Your task to perform on an android device: Search for the best 4k TVs Image 0: 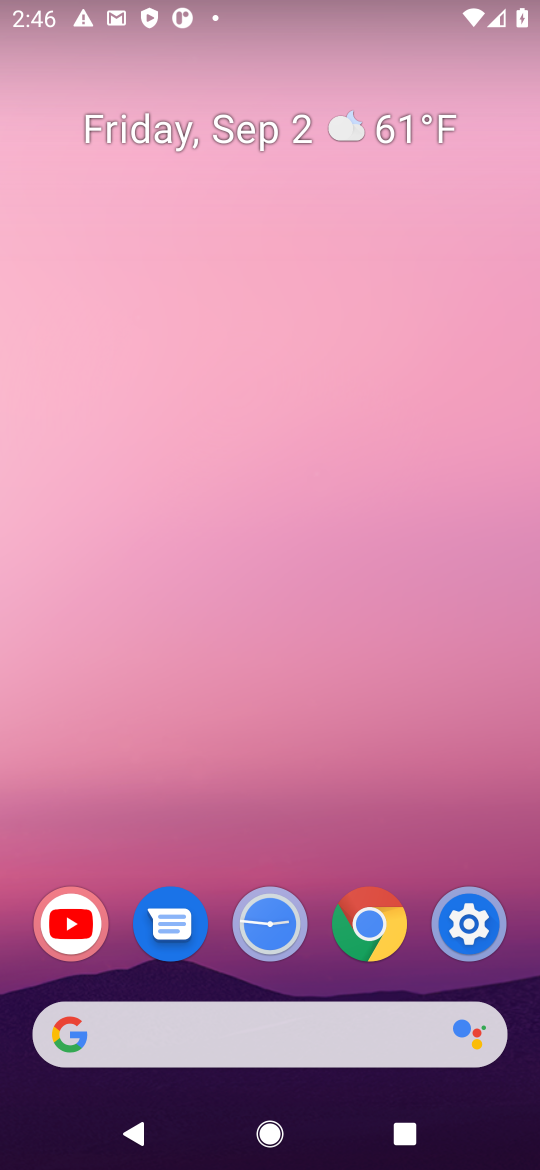
Step 0: press home button
Your task to perform on an android device: Search for the best 4k TVs Image 1: 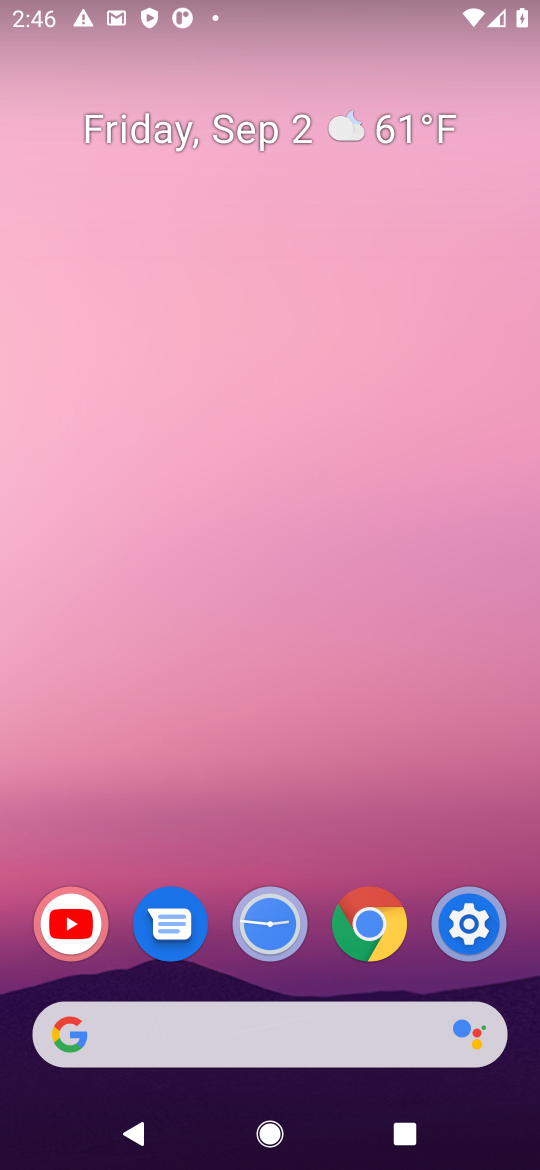
Step 1: click (395, 1031)
Your task to perform on an android device: Search for the best 4k TVs Image 2: 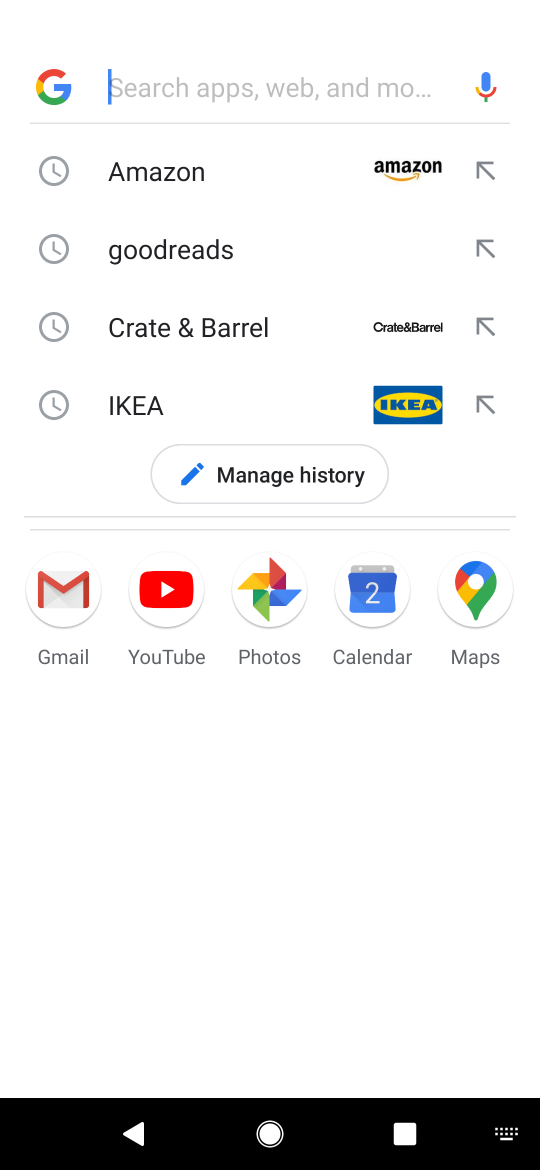
Step 2: press enter
Your task to perform on an android device: Search for the best 4k TVs Image 3: 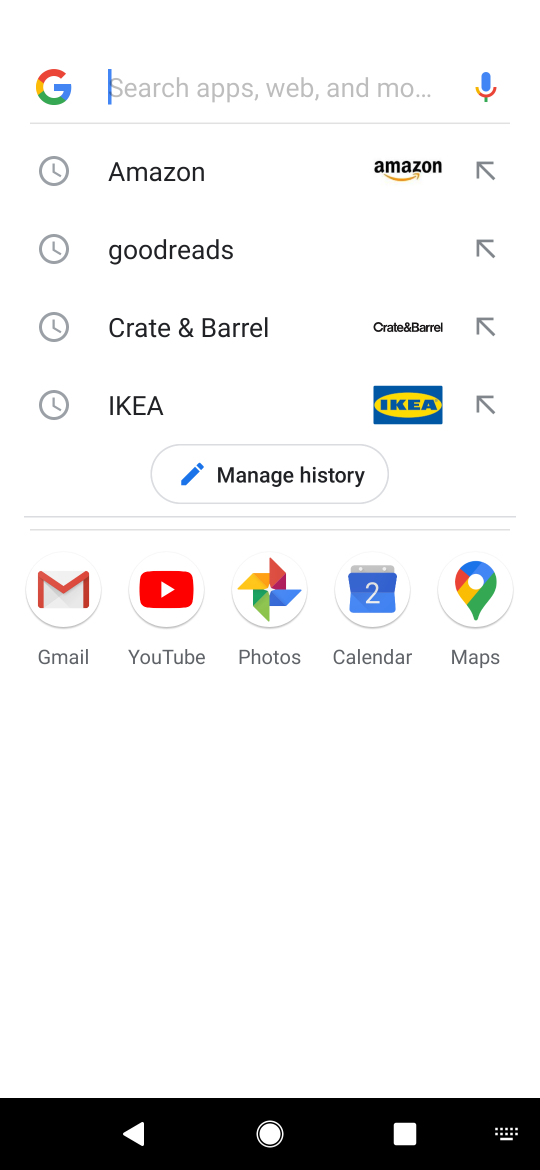
Step 3: type "4k tvs"
Your task to perform on an android device: Search for the best 4k TVs Image 4: 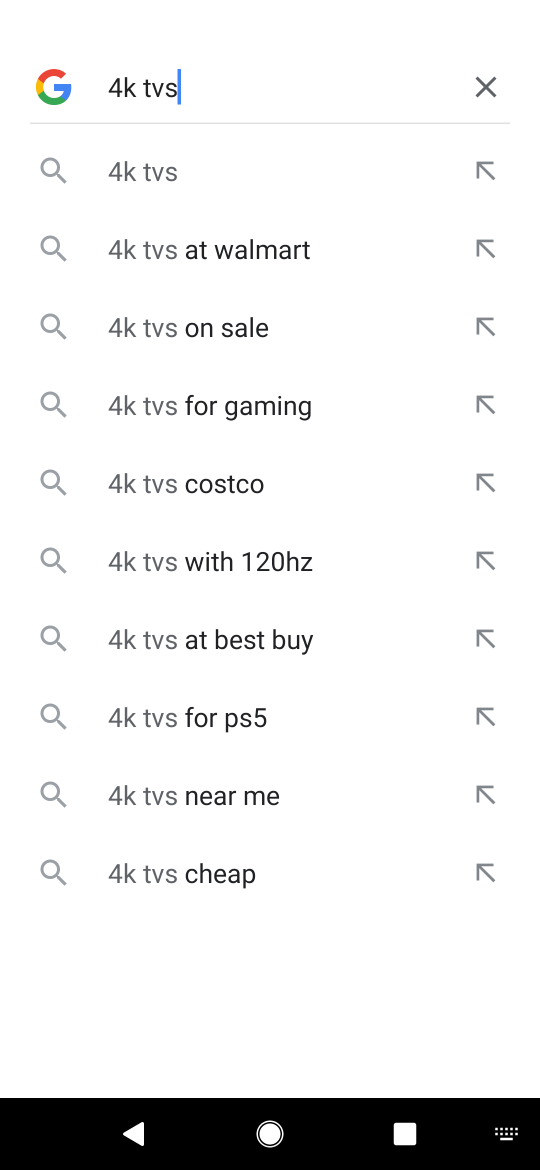
Step 4: click (153, 163)
Your task to perform on an android device: Search for the best 4k TVs Image 5: 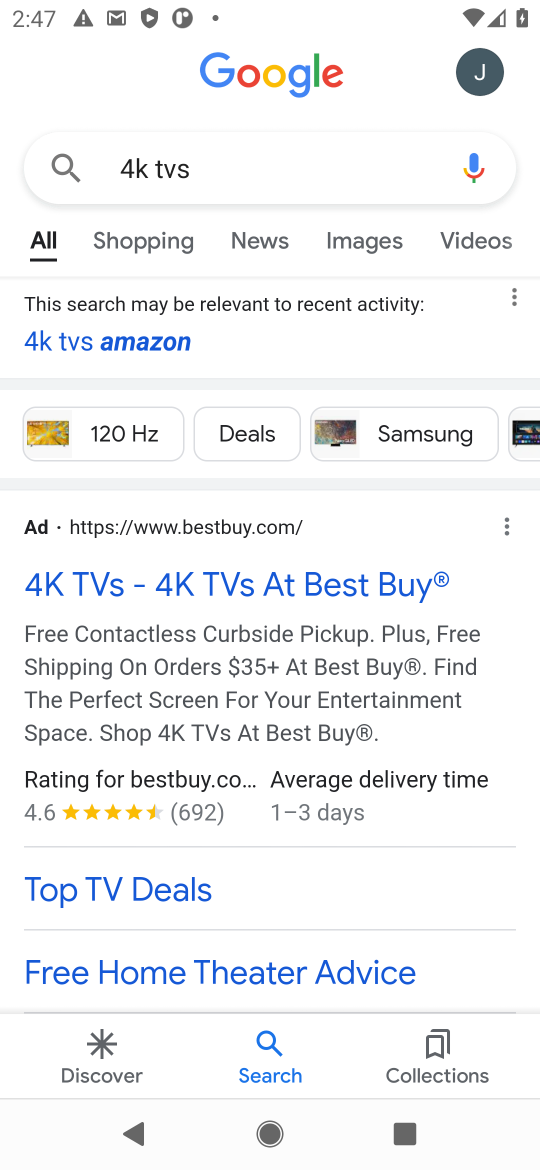
Step 5: click (249, 585)
Your task to perform on an android device: Search for the best 4k TVs Image 6: 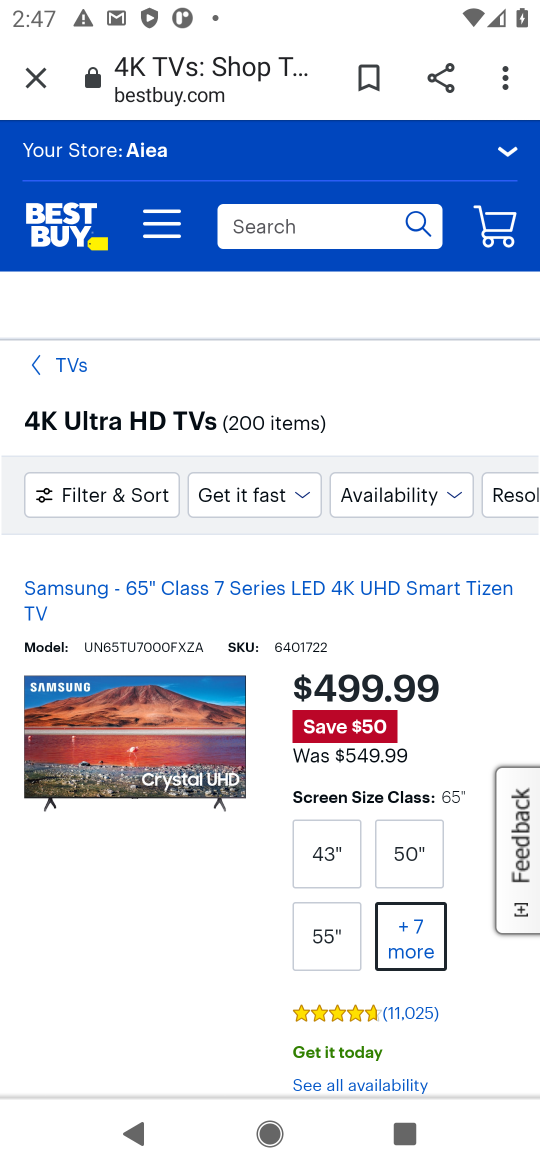
Step 6: task complete